Your task to perform on an android device: turn off airplane mode Image 0: 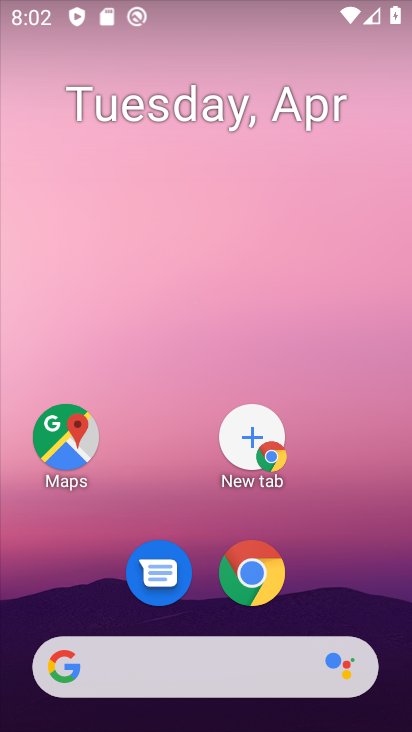
Step 0: drag from (302, 10) to (241, 645)
Your task to perform on an android device: turn off airplane mode Image 1: 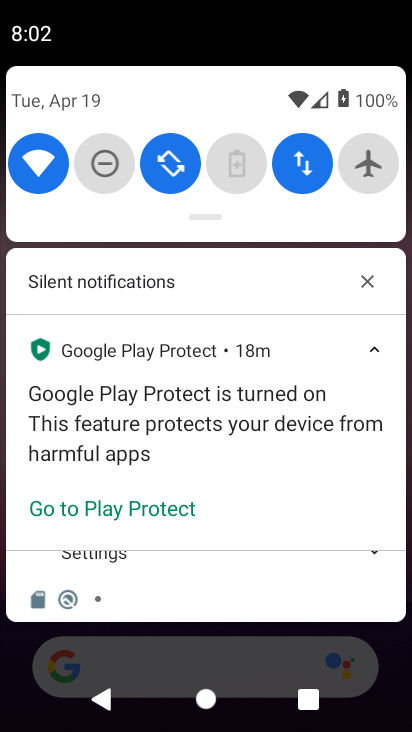
Step 1: task complete